Your task to perform on an android device: Go to Maps Image 0: 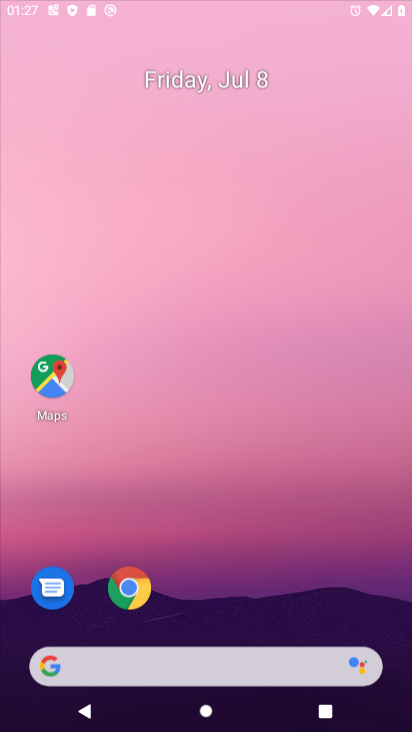
Step 0: click (303, 99)
Your task to perform on an android device: Go to Maps Image 1: 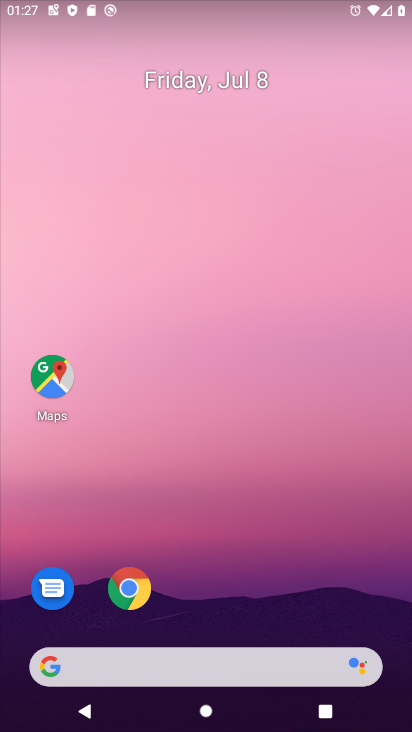
Step 1: drag from (214, 610) to (196, 189)
Your task to perform on an android device: Go to Maps Image 2: 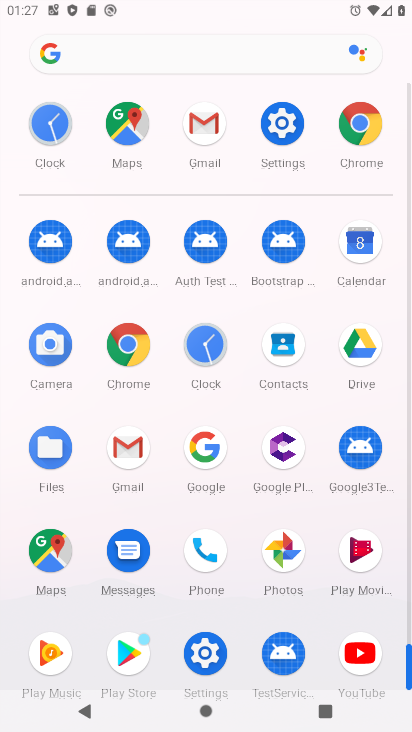
Step 2: click (54, 550)
Your task to perform on an android device: Go to Maps Image 3: 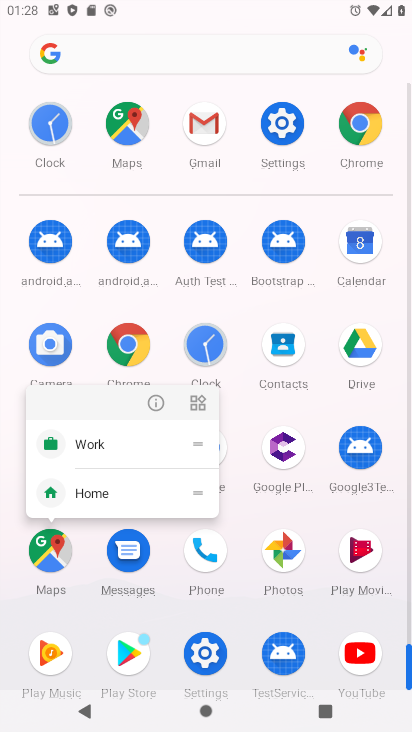
Step 3: click (162, 398)
Your task to perform on an android device: Go to Maps Image 4: 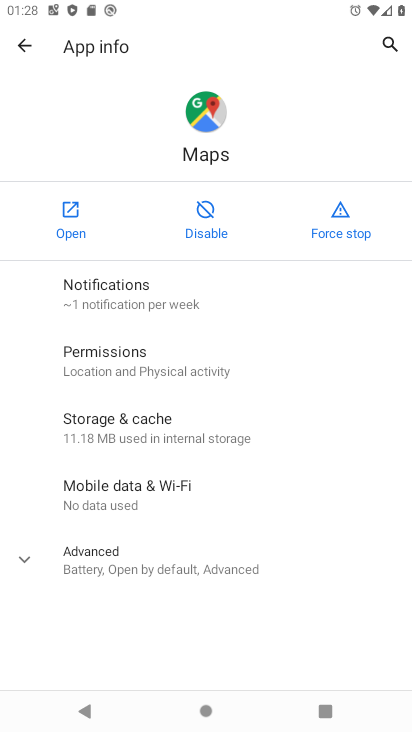
Step 4: click (68, 203)
Your task to perform on an android device: Go to Maps Image 5: 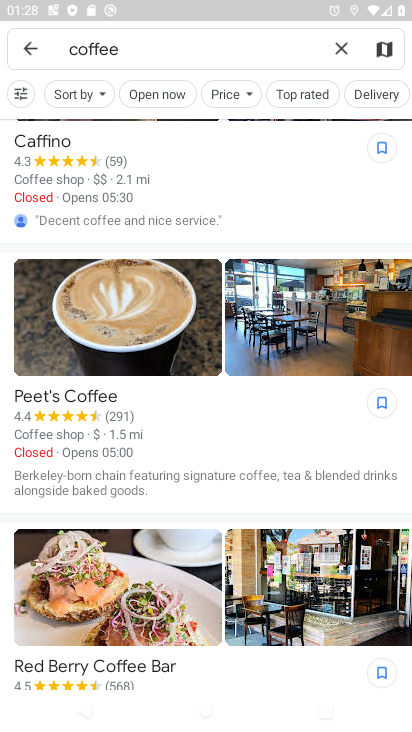
Step 5: task complete